Your task to perform on an android device: Find coffee shops on Maps Image 0: 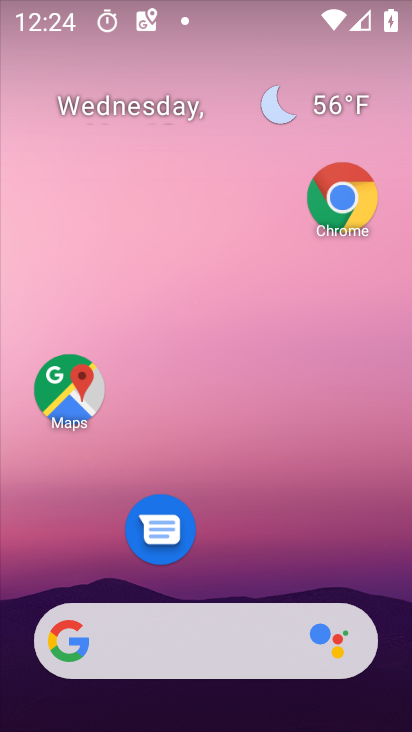
Step 0: click (69, 363)
Your task to perform on an android device: Find coffee shops on Maps Image 1: 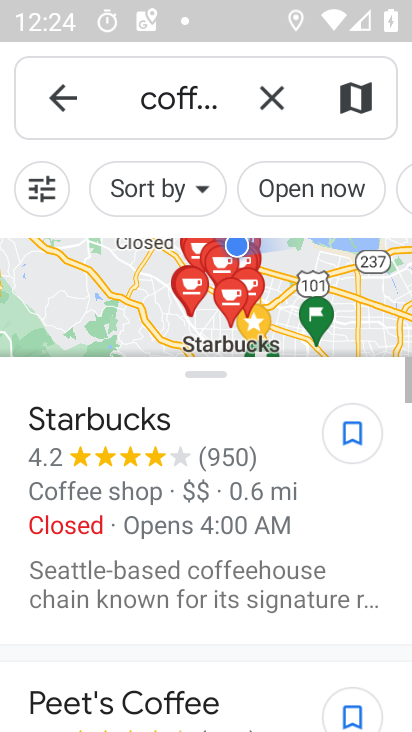
Step 1: task complete